Your task to perform on an android device: empty trash in google photos Image 0: 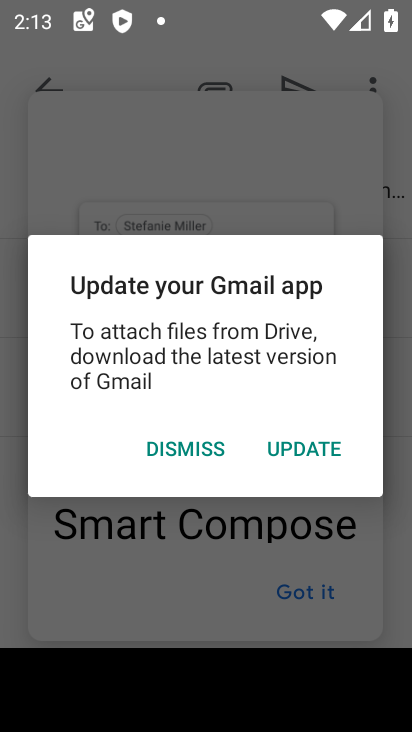
Step 0: click (172, 445)
Your task to perform on an android device: empty trash in google photos Image 1: 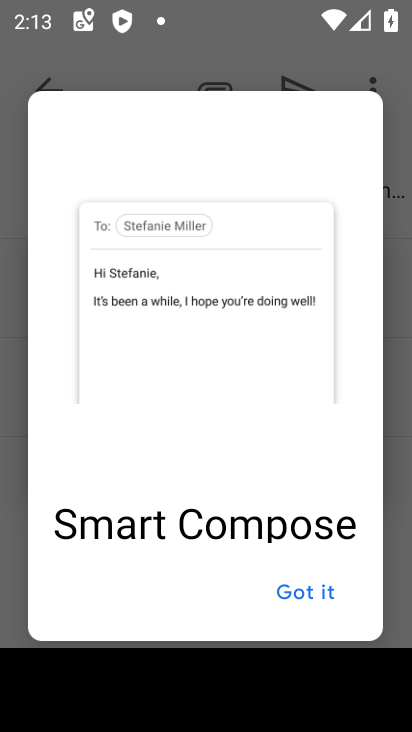
Step 1: press home button
Your task to perform on an android device: empty trash in google photos Image 2: 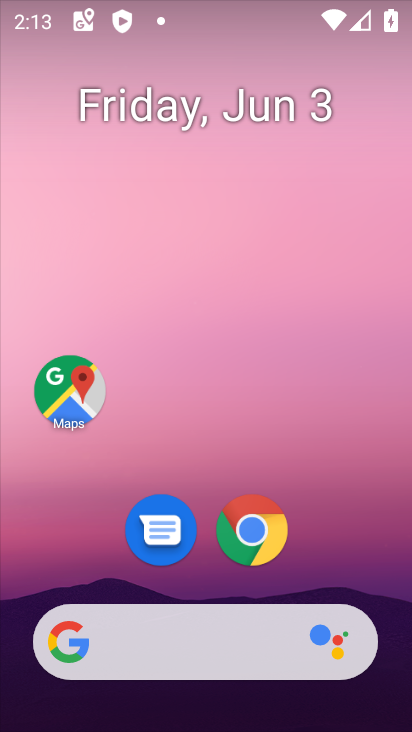
Step 2: drag from (329, 535) to (237, 114)
Your task to perform on an android device: empty trash in google photos Image 3: 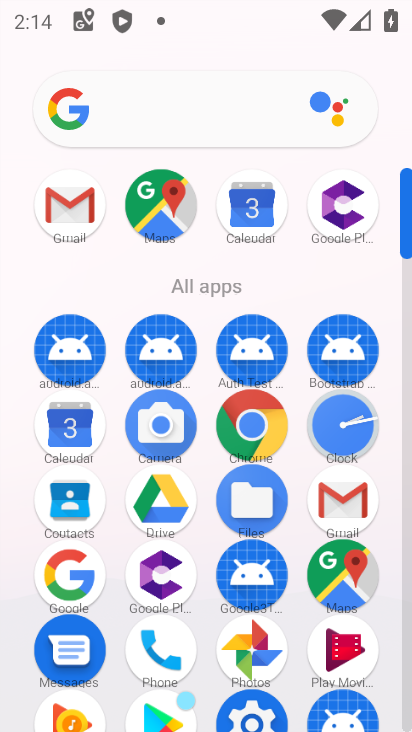
Step 3: click (242, 637)
Your task to perform on an android device: empty trash in google photos Image 4: 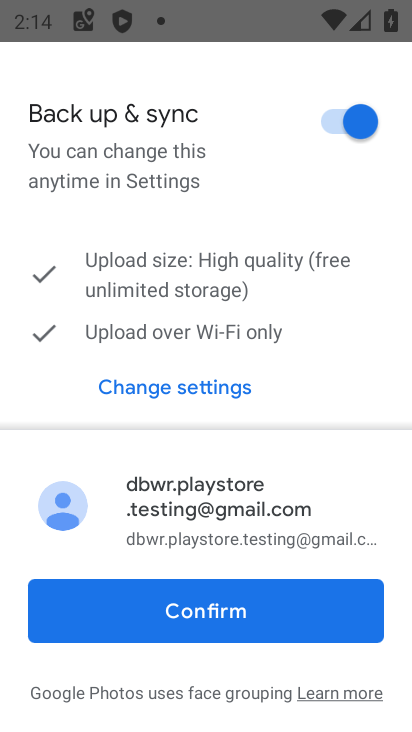
Step 4: click (211, 608)
Your task to perform on an android device: empty trash in google photos Image 5: 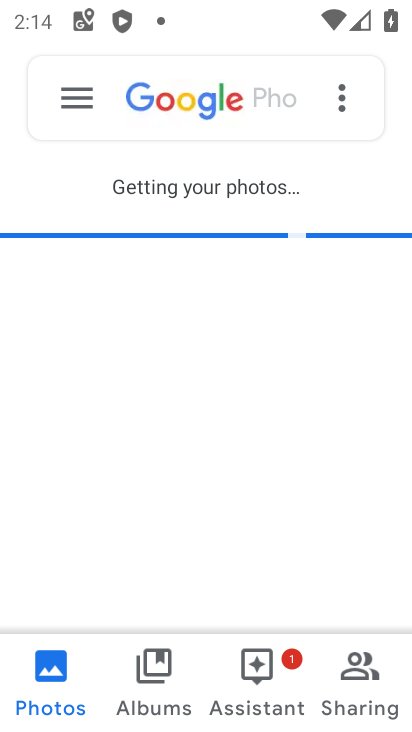
Step 5: click (70, 96)
Your task to perform on an android device: empty trash in google photos Image 6: 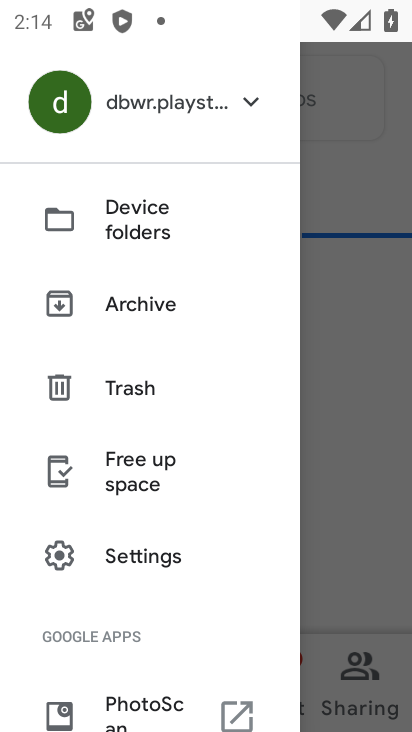
Step 6: click (129, 378)
Your task to perform on an android device: empty trash in google photos Image 7: 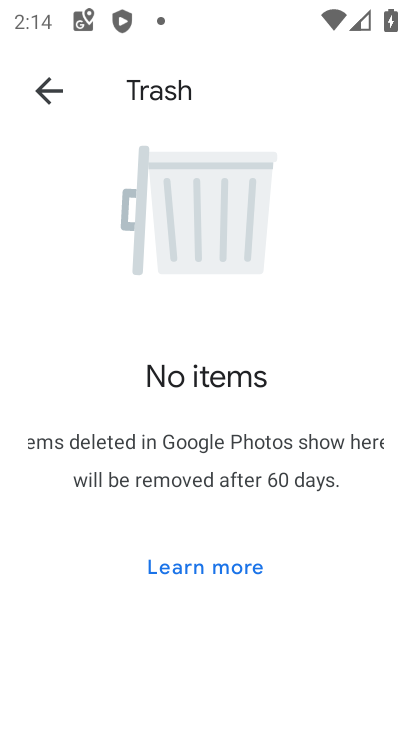
Step 7: task complete